Your task to perform on an android device: open app "Facebook Lite" (install if not already installed) and go to login screen Image 0: 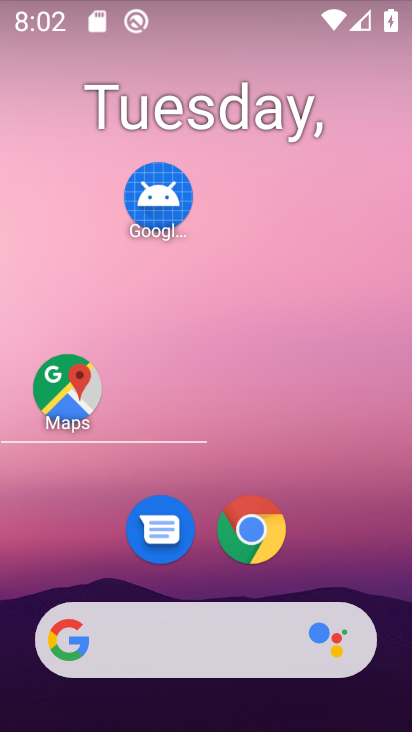
Step 0: press home button
Your task to perform on an android device: open app "Facebook Lite" (install if not already installed) and go to login screen Image 1: 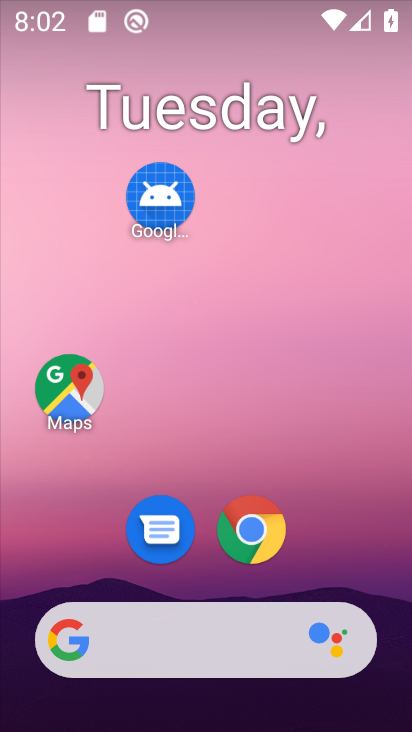
Step 1: drag from (328, 573) to (303, 45)
Your task to perform on an android device: open app "Facebook Lite" (install if not already installed) and go to login screen Image 2: 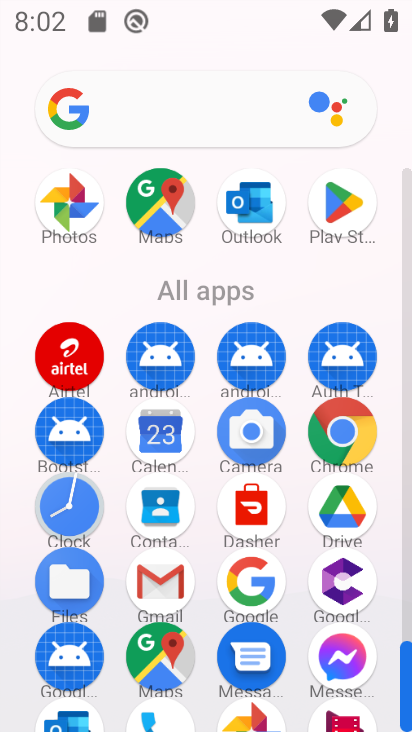
Step 2: click (342, 198)
Your task to perform on an android device: open app "Facebook Lite" (install if not already installed) and go to login screen Image 3: 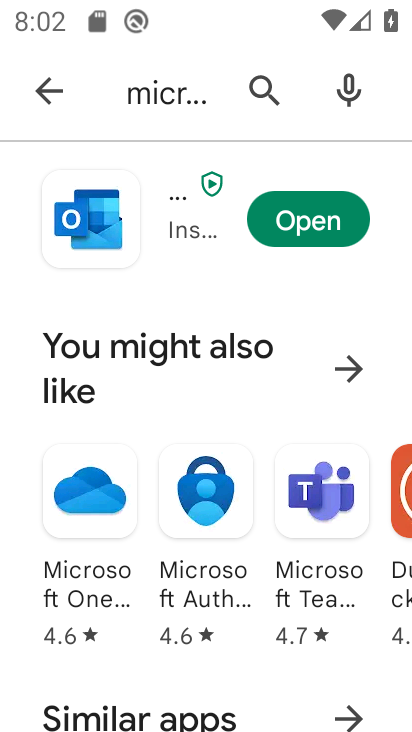
Step 3: click (259, 97)
Your task to perform on an android device: open app "Facebook Lite" (install if not already installed) and go to login screen Image 4: 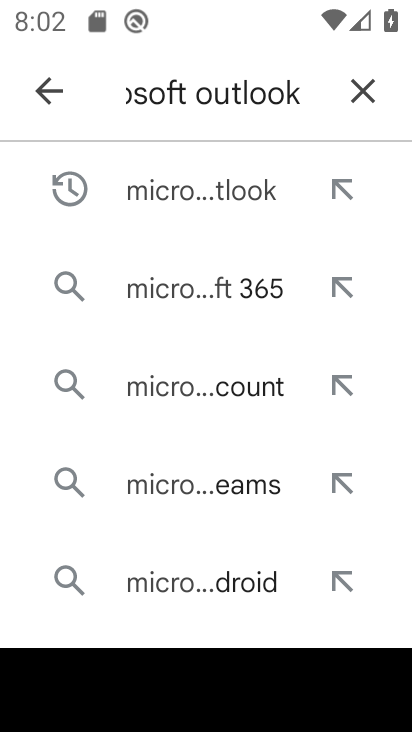
Step 4: click (366, 88)
Your task to perform on an android device: open app "Facebook Lite" (install if not already installed) and go to login screen Image 5: 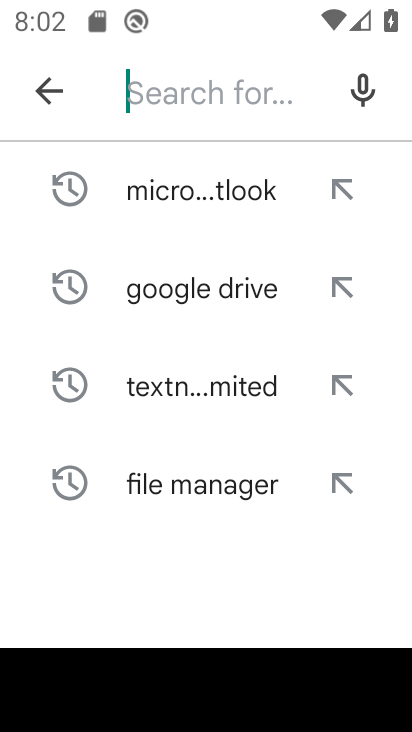
Step 5: type "Facebook Lite"
Your task to perform on an android device: open app "Facebook Lite" (install if not already installed) and go to login screen Image 6: 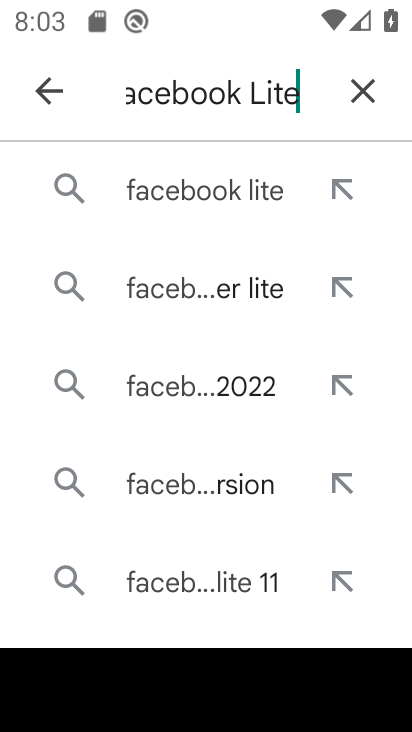
Step 6: click (238, 180)
Your task to perform on an android device: open app "Facebook Lite" (install if not already installed) and go to login screen Image 7: 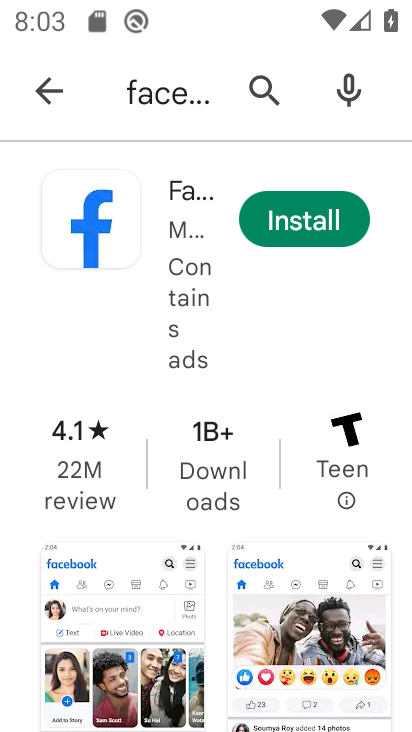
Step 7: click (319, 212)
Your task to perform on an android device: open app "Facebook Lite" (install if not already installed) and go to login screen Image 8: 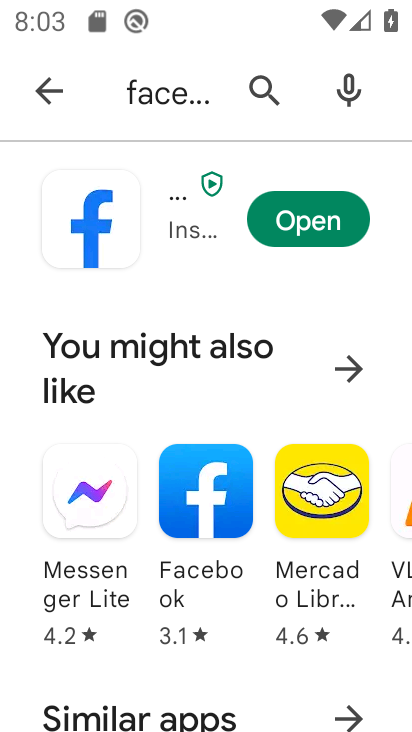
Step 8: click (303, 225)
Your task to perform on an android device: open app "Facebook Lite" (install if not already installed) and go to login screen Image 9: 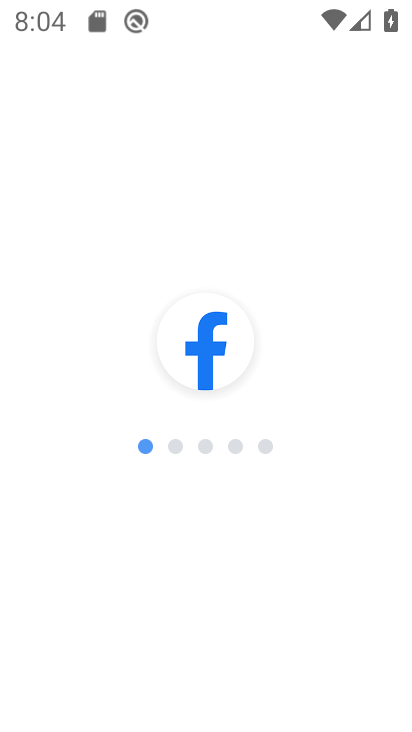
Step 9: task complete